Your task to perform on an android device: Go to Maps Image 0: 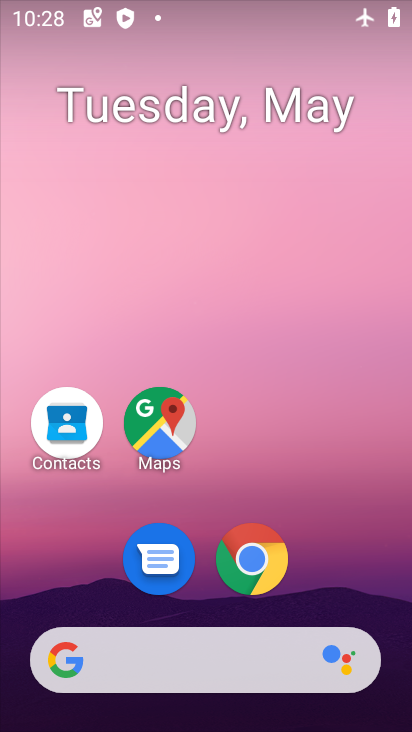
Step 0: click (158, 425)
Your task to perform on an android device: Go to Maps Image 1: 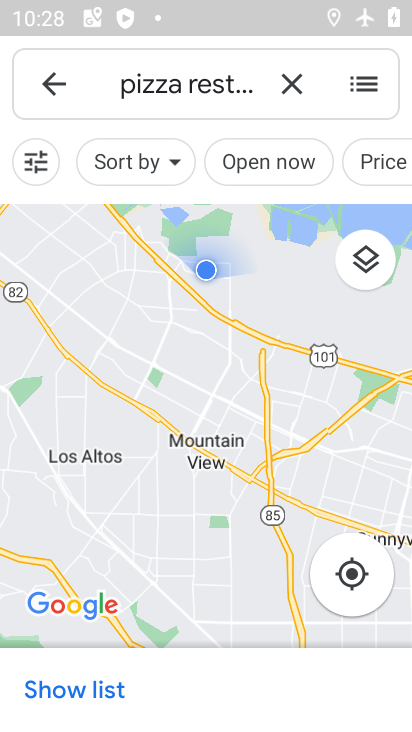
Step 1: task complete